Your task to perform on an android device: Go to Maps Image 0: 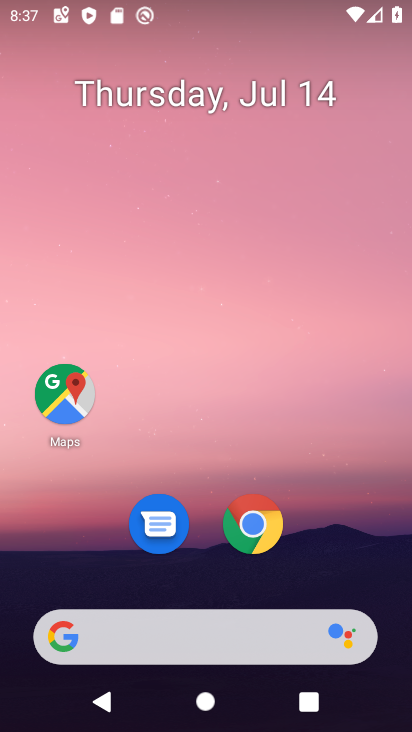
Step 0: click (66, 402)
Your task to perform on an android device: Go to Maps Image 1: 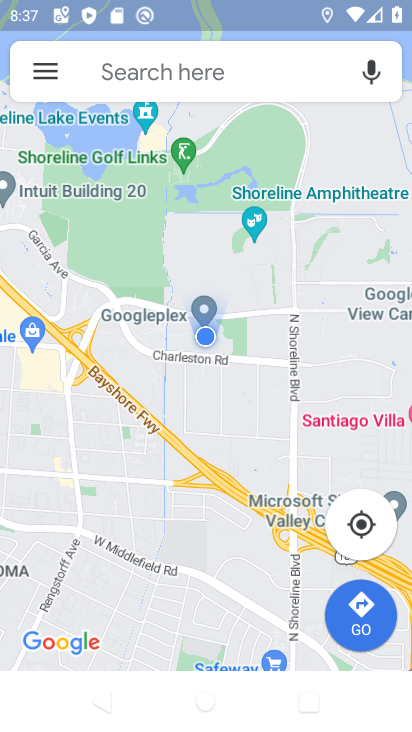
Step 1: task complete